Your task to perform on an android device: Open Chrome and go to settings Image 0: 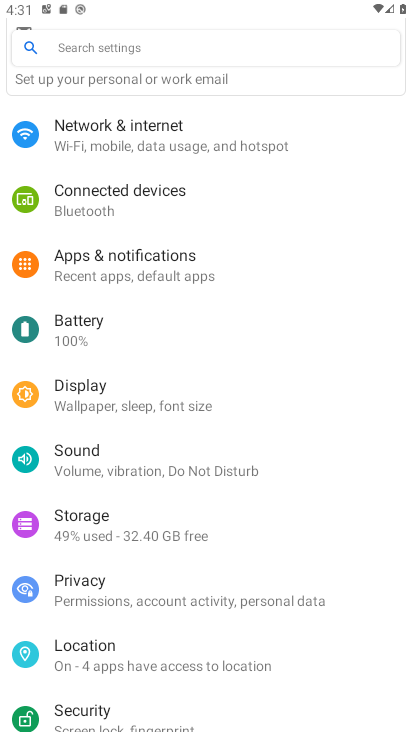
Step 0: press home button
Your task to perform on an android device: Open Chrome and go to settings Image 1: 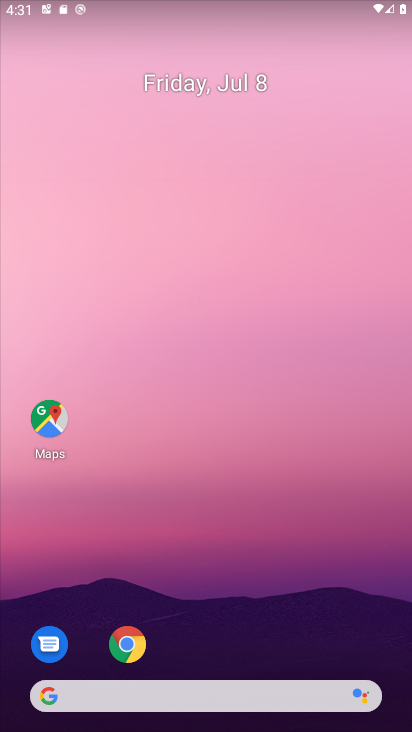
Step 1: click (127, 646)
Your task to perform on an android device: Open Chrome and go to settings Image 2: 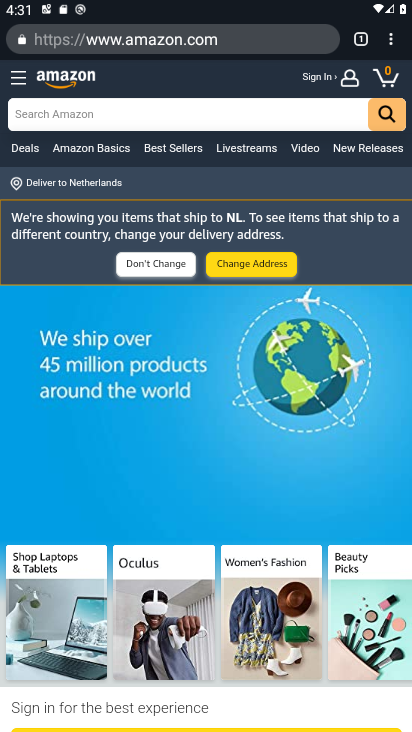
Step 2: click (389, 44)
Your task to perform on an android device: Open Chrome and go to settings Image 3: 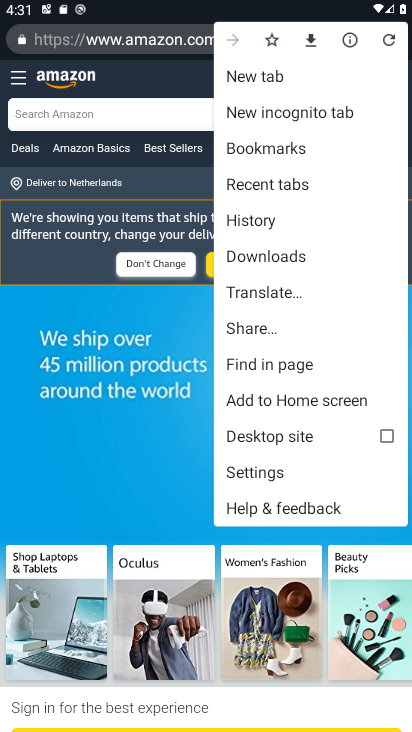
Step 3: click (263, 465)
Your task to perform on an android device: Open Chrome and go to settings Image 4: 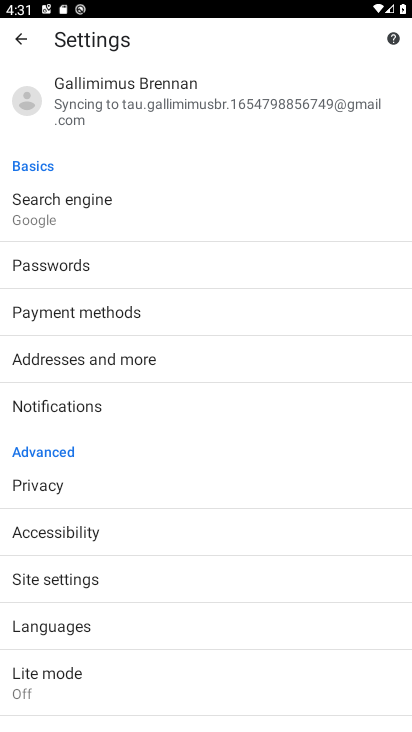
Step 4: task complete